Your task to perform on an android device: set the timer Image 0: 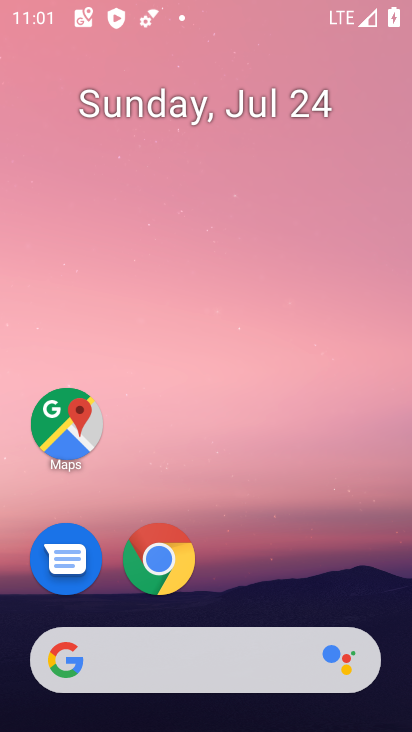
Step 0: drag from (257, 563) to (283, 9)
Your task to perform on an android device: set the timer Image 1: 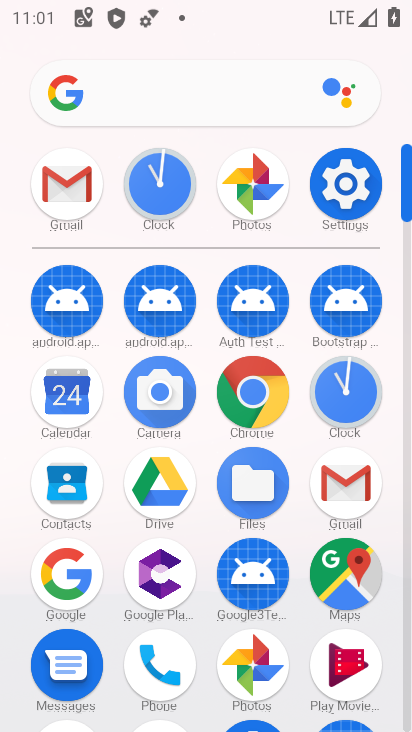
Step 1: click (353, 404)
Your task to perform on an android device: set the timer Image 2: 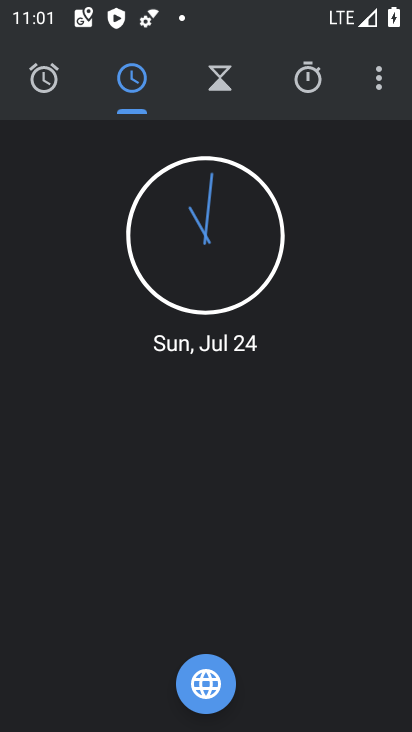
Step 2: click (376, 78)
Your task to perform on an android device: set the timer Image 3: 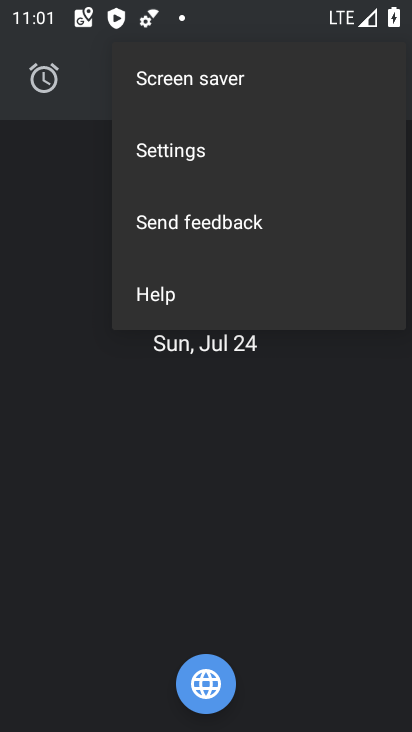
Step 3: click (196, 146)
Your task to perform on an android device: set the timer Image 4: 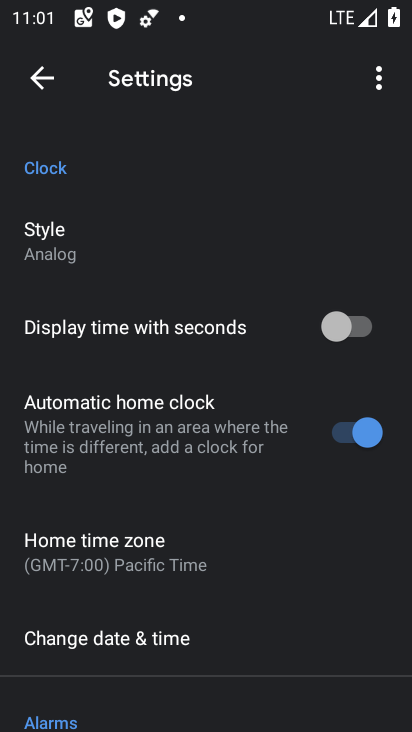
Step 4: drag from (170, 623) to (294, 263)
Your task to perform on an android device: set the timer Image 5: 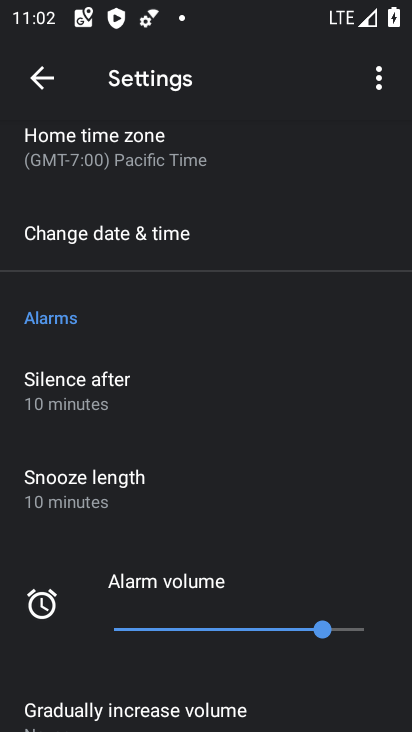
Step 5: click (47, 66)
Your task to perform on an android device: set the timer Image 6: 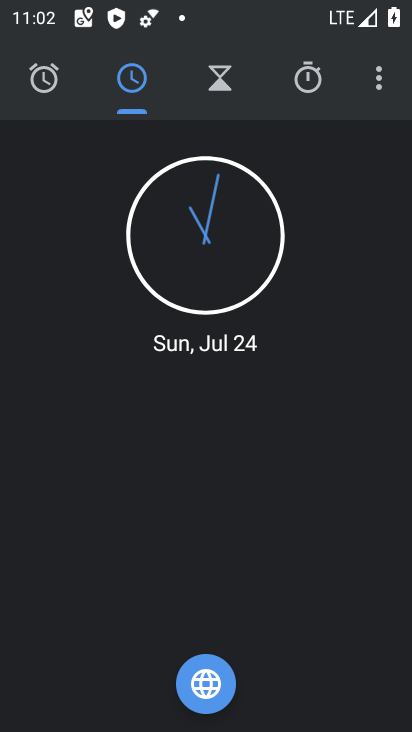
Step 6: click (196, 86)
Your task to perform on an android device: set the timer Image 7: 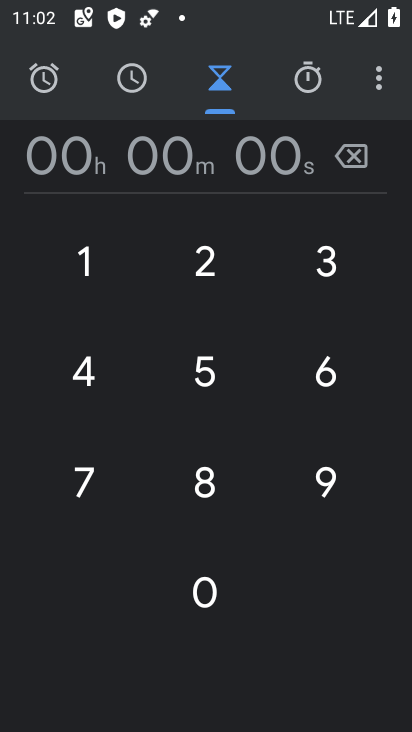
Step 7: click (226, 256)
Your task to perform on an android device: set the timer Image 8: 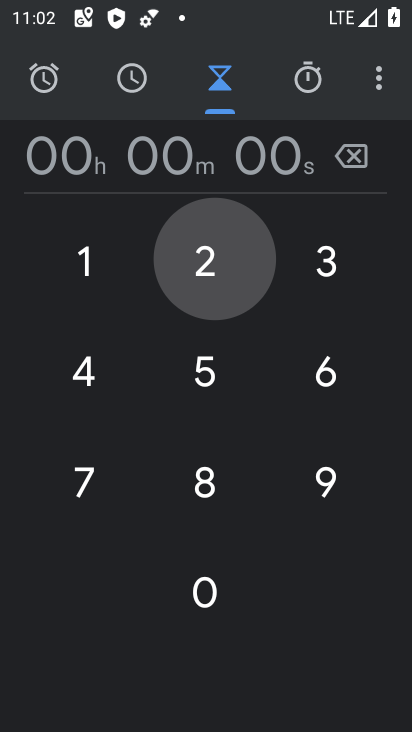
Step 8: click (340, 249)
Your task to perform on an android device: set the timer Image 9: 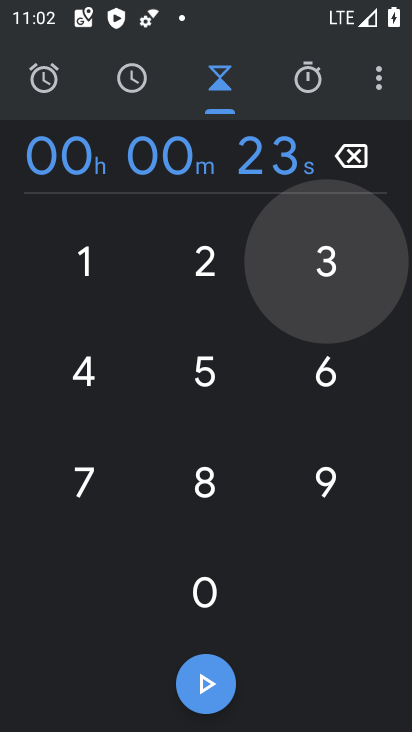
Step 9: click (189, 371)
Your task to perform on an android device: set the timer Image 10: 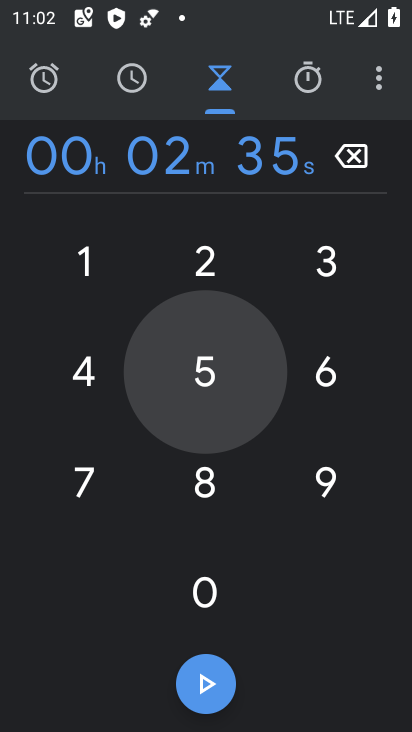
Step 10: click (303, 371)
Your task to perform on an android device: set the timer Image 11: 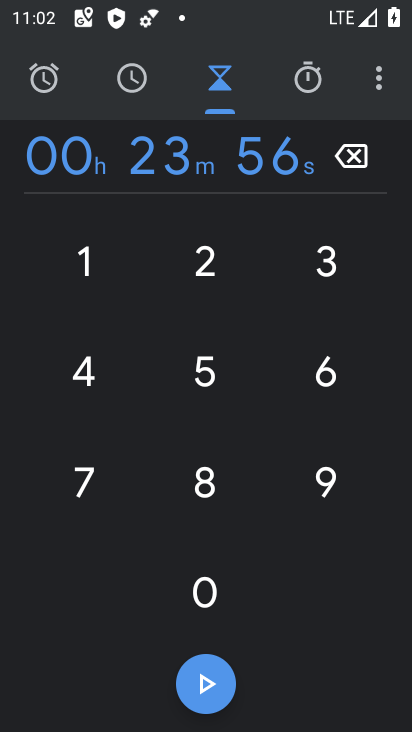
Step 11: click (95, 357)
Your task to perform on an android device: set the timer Image 12: 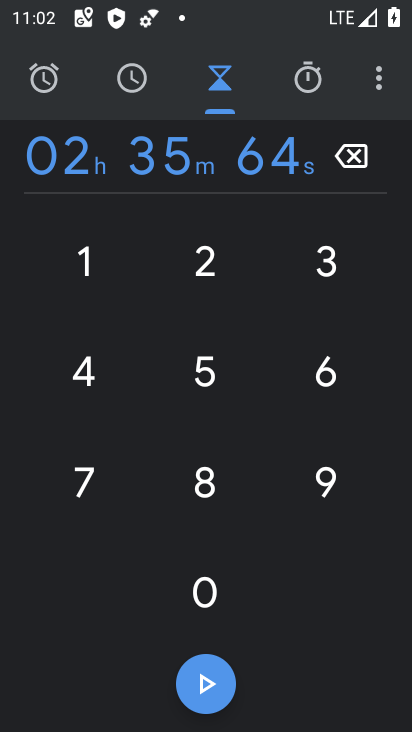
Step 12: task complete